Your task to perform on an android device: turn pop-ups on in chrome Image 0: 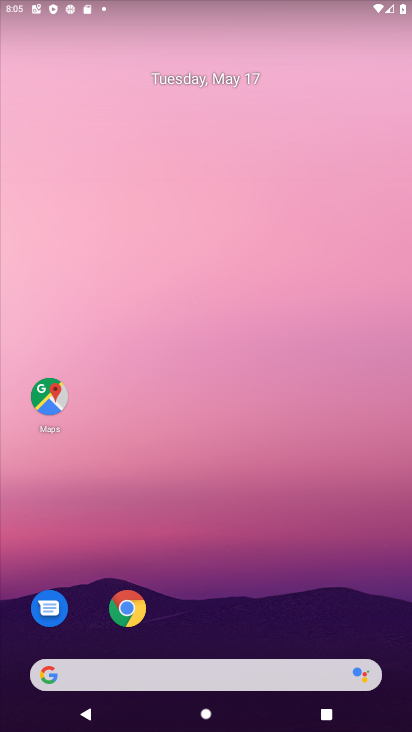
Step 0: click (123, 611)
Your task to perform on an android device: turn pop-ups on in chrome Image 1: 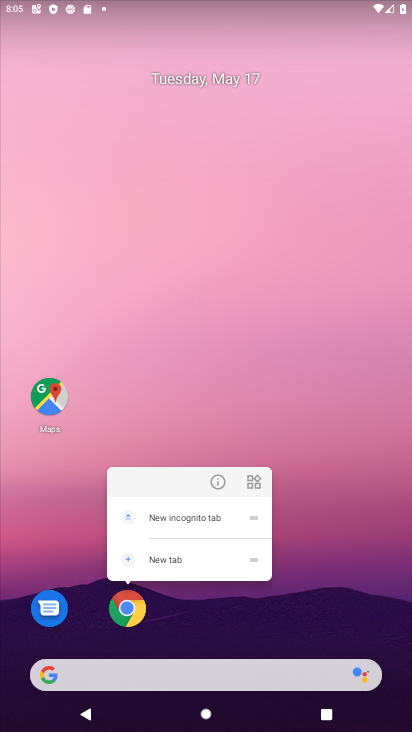
Step 1: click (164, 570)
Your task to perform on an android device: turn pop-ups on in chrome Image 2: 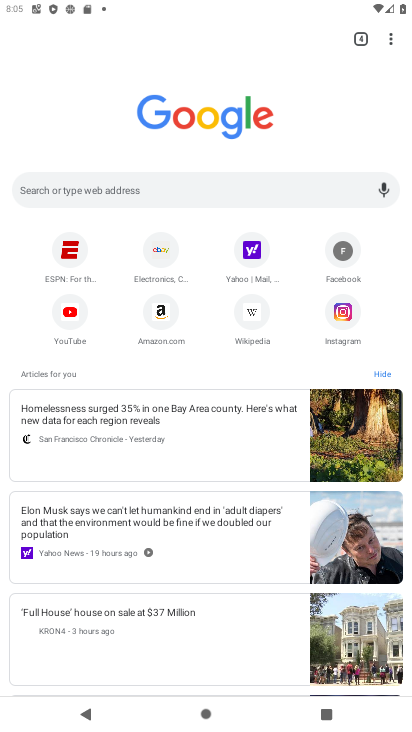
Step 2: click (395, 43)
Your task to perform on an android device: turn pop-ups on in chrome Image 3: 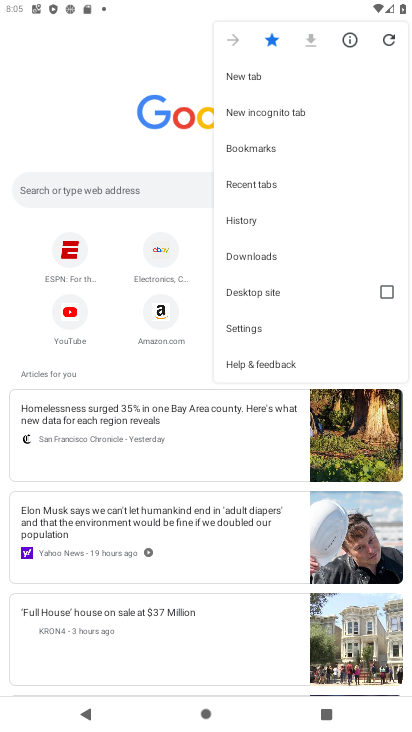
Step 3: click (246, 326)
Your task to perform on an android device: turn pop-ups on in chrome Image 4: 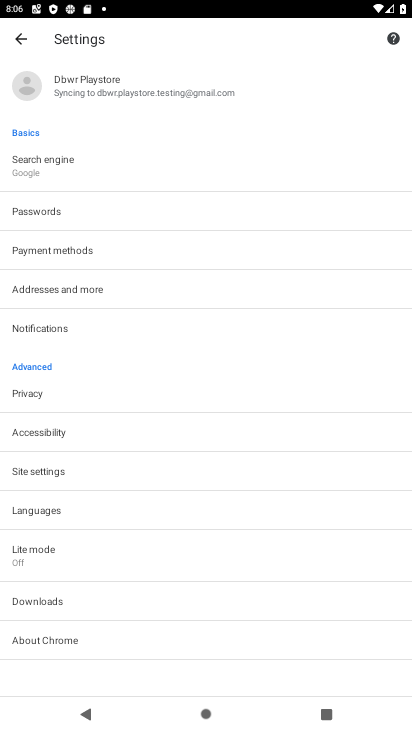
Step 4: click (50, 470)
Your task to perform on an android device: turn pop-ups on in chrome Image 5: 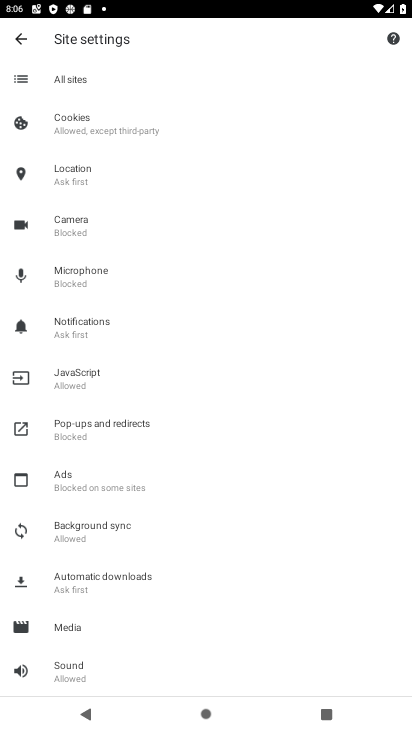
Step 5: click (115, 421)
Your task to perform on an android device: turn pop-ups on in chrome Image 6: 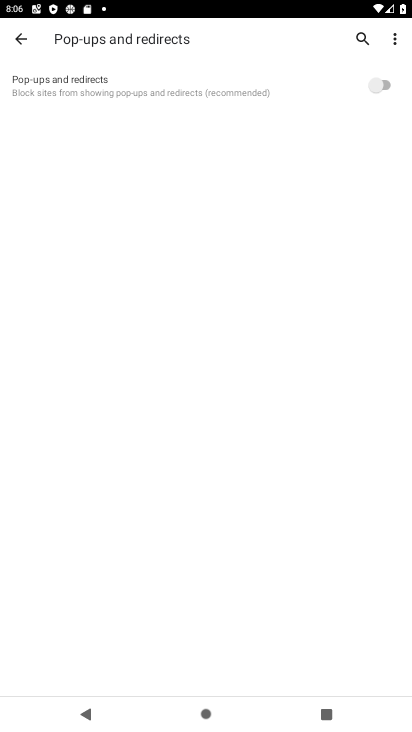
Step 6: click (389, 79)
Your task to perform on an android device: turn pop-ups on in chrome Image 7: 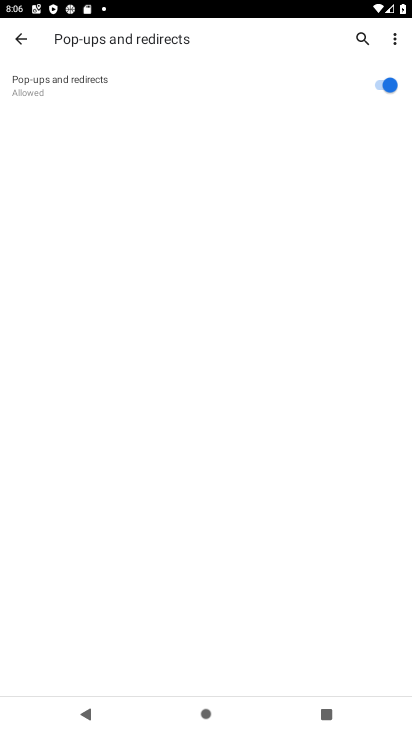
Step 7: task complete